Your task to perform on an android device: Show me the alarms in the clock app Image 0: 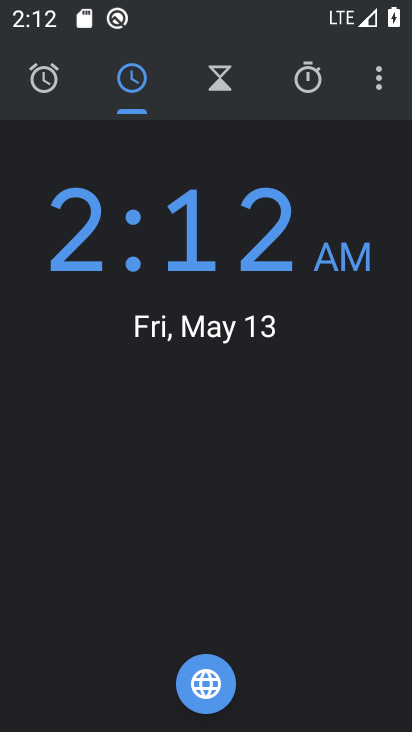
Step 0: click (55, 68)
Your task to perform on an android device: Show me the alarms in the clock app Image 1: 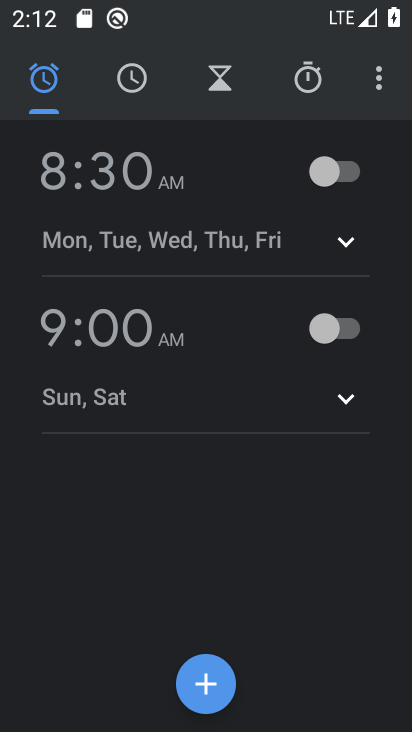
Step 1: task complete